Your task to perform on an android device: Go to Google maps Image 0: 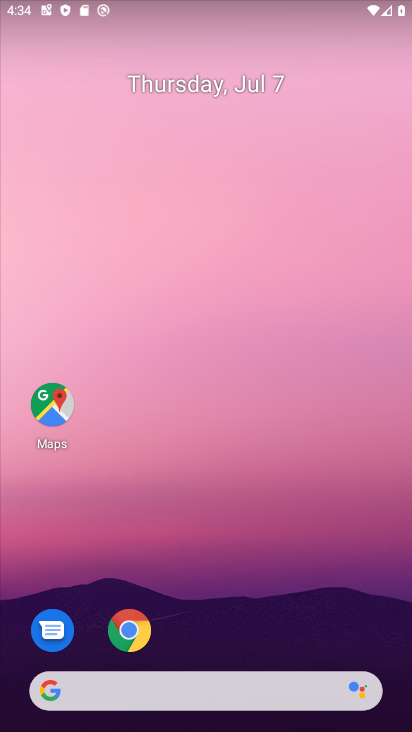
Step 0: click (59, 404)
Your task to perform on an android device: Go to Google maps Image 1: 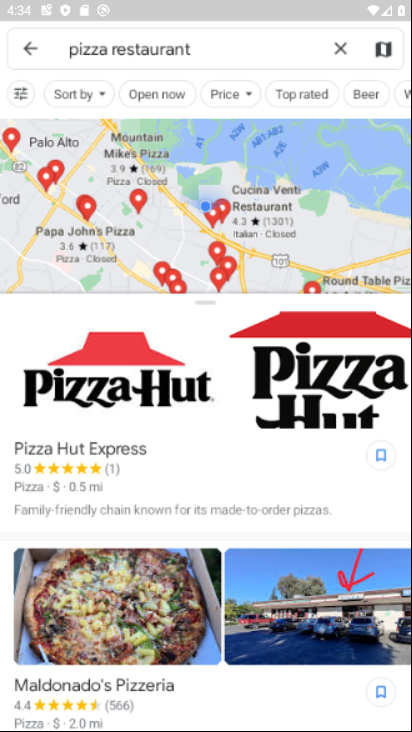
Step 1: task complete